Your task to perform on an android device: Go to battery settings Image 0: 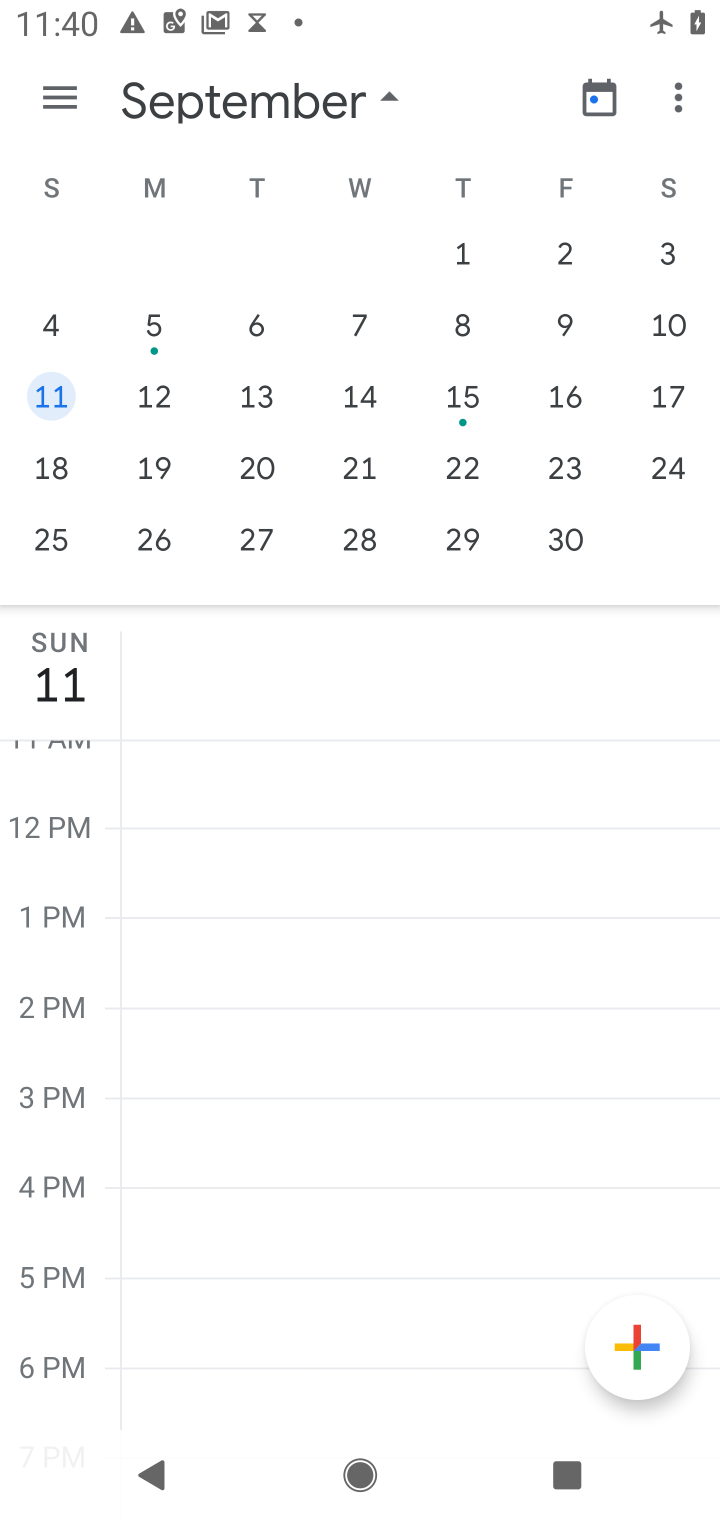
Step 0: press home button
Your task to perform on an android device: Go to battery settings Image 1: 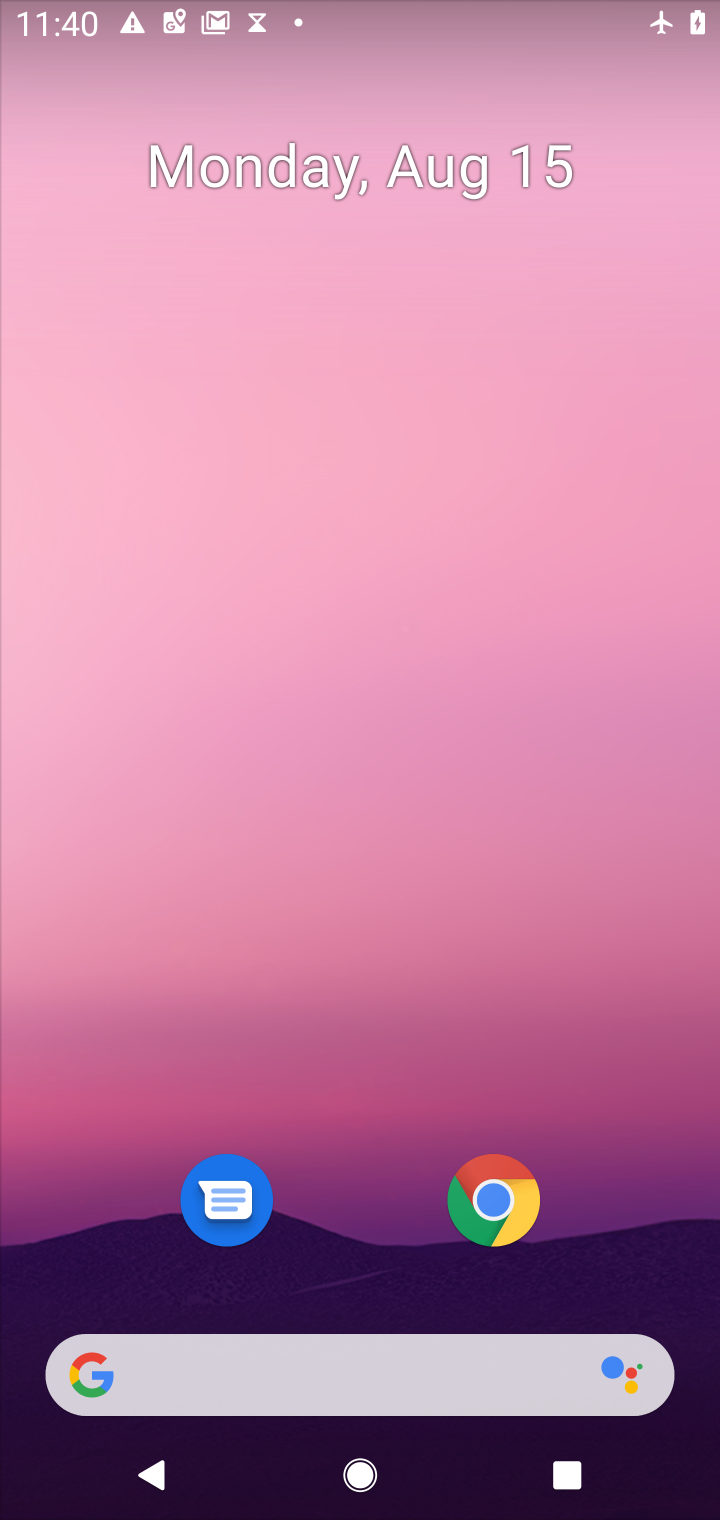
Step 1: drag from (409, 866) to (409, 265)
Your task to perform on an android device: Go to battery settings Image 2: 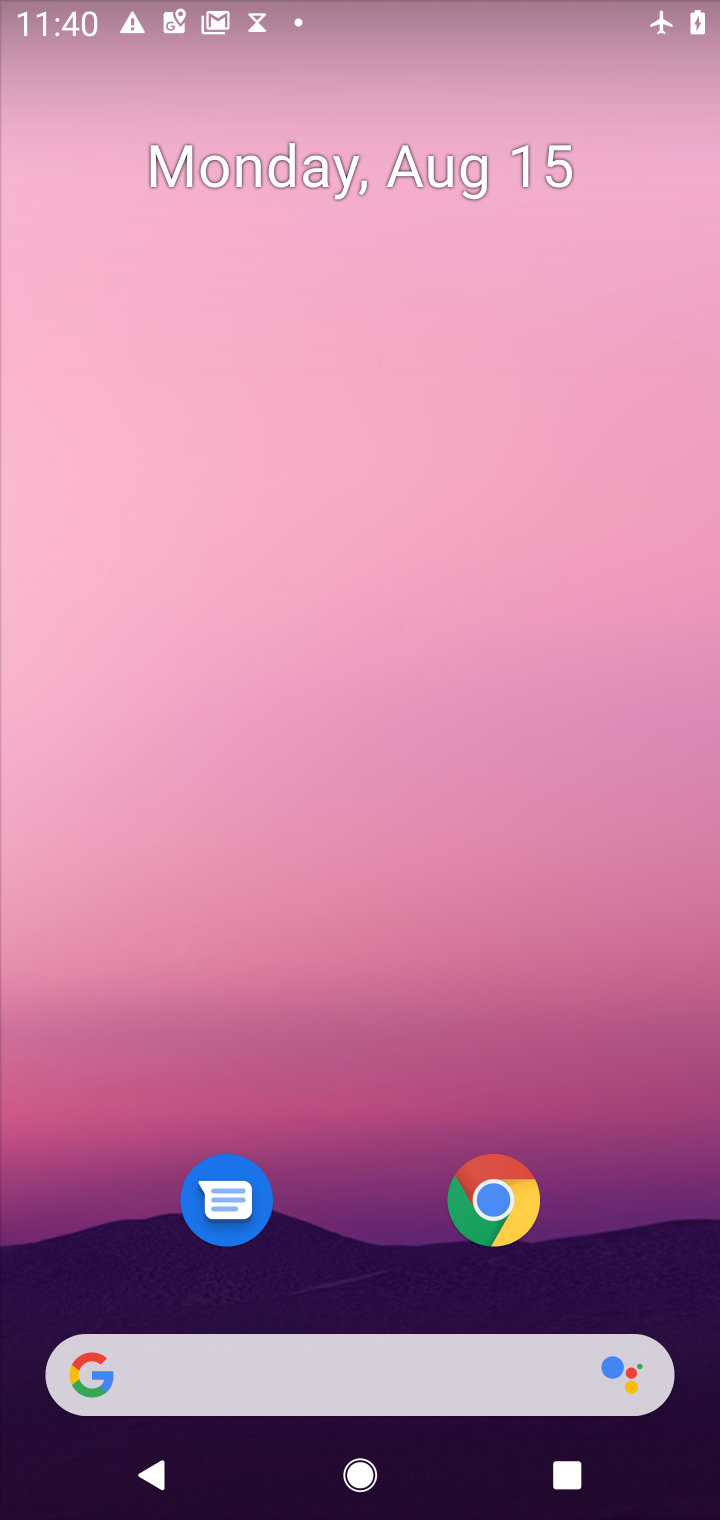
Step 2: drag from (342, 1023) to (320, 151)
Your task to perform on an android device: Go to battery settings Image 3: 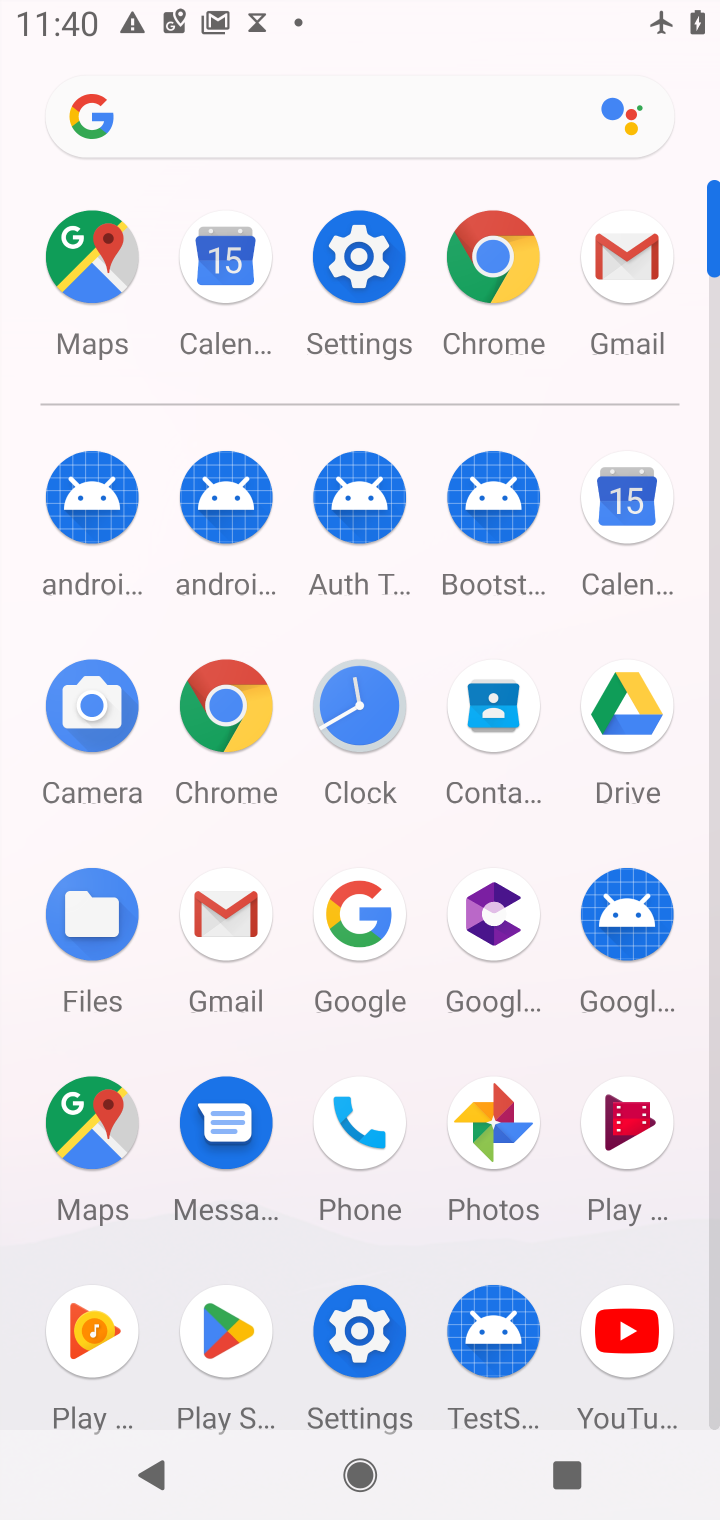
Step 3: click (364, 265)
Your task to perform on an android device: Go to battery settings Image 4: 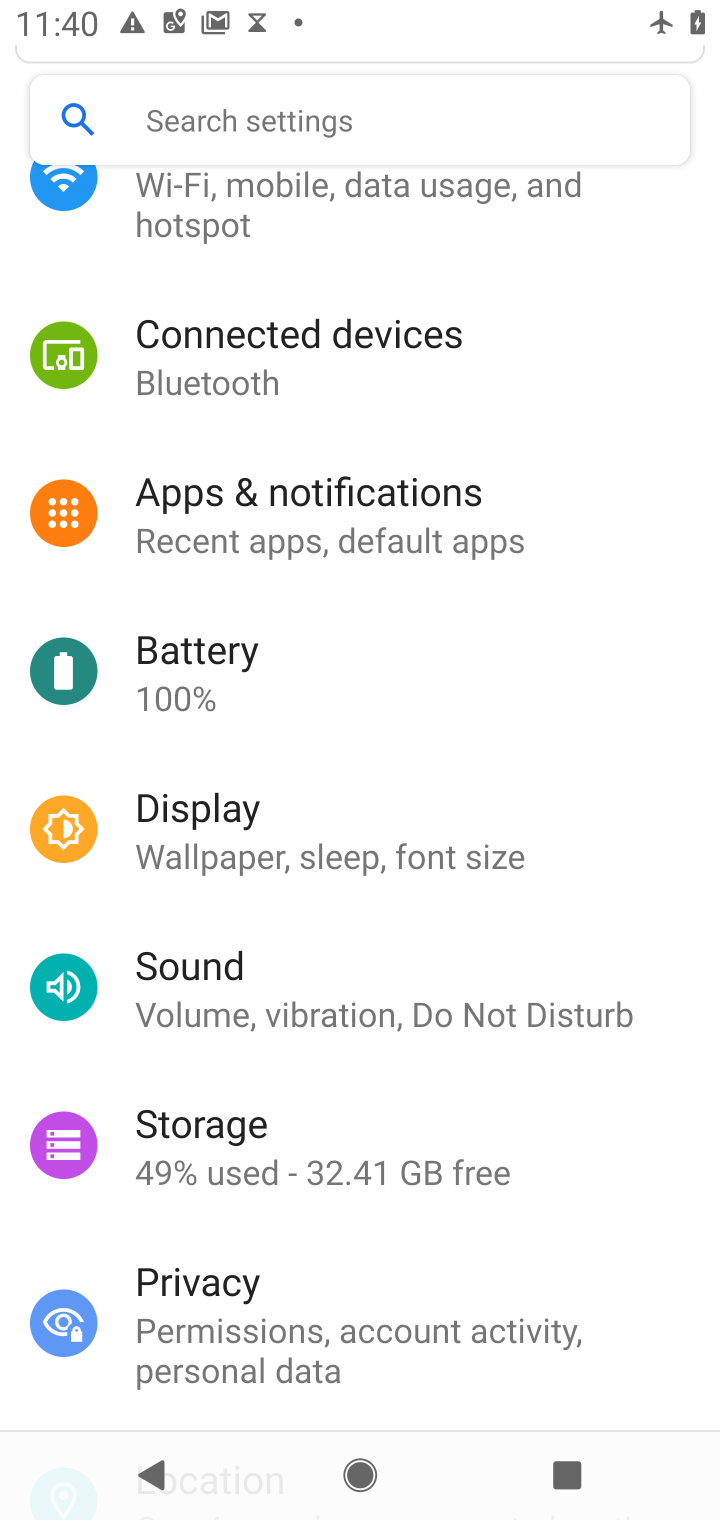
Step 4: click (182, 677)
Your task to perform on an android device: Go to battery settings Image 5: 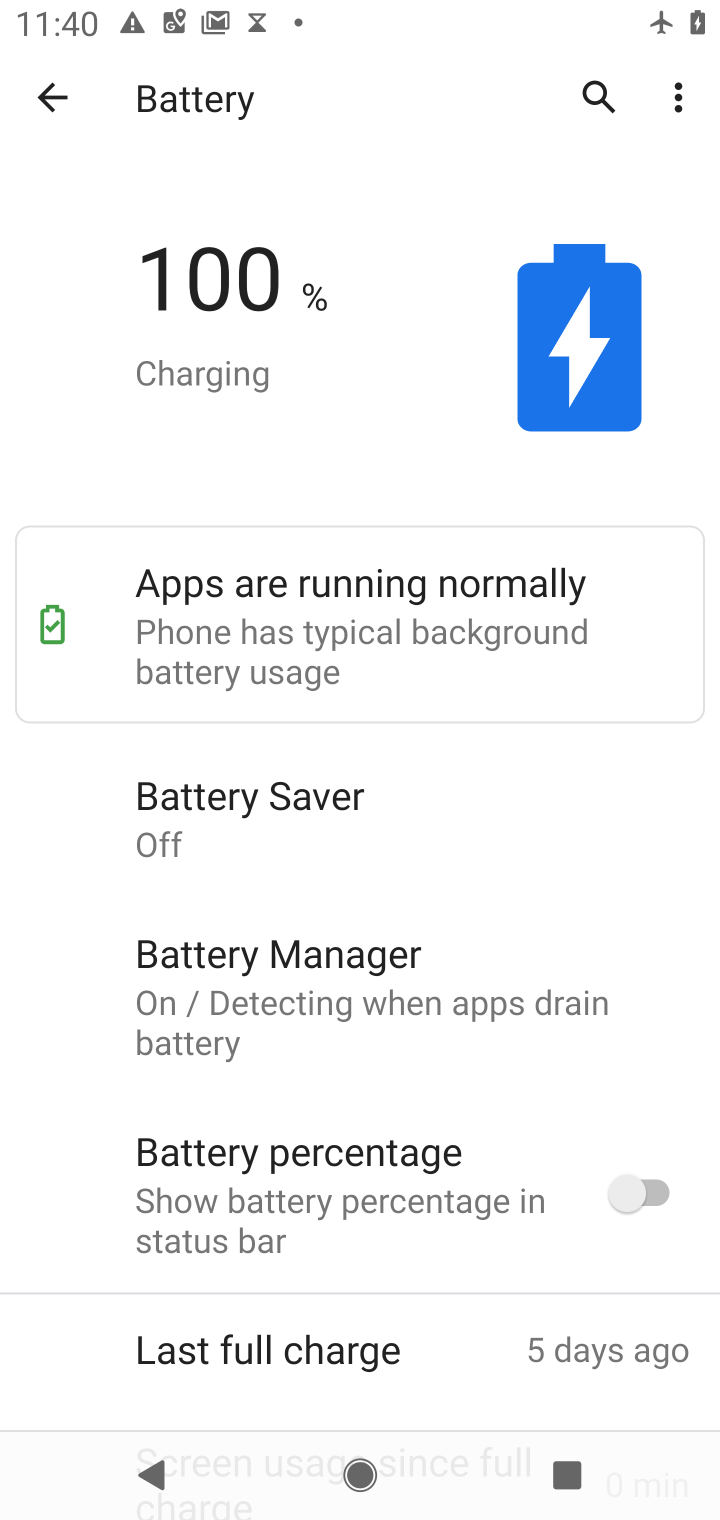
Step 5: task complete